Your task to perform on an android device: Go to battery settings Image 0: 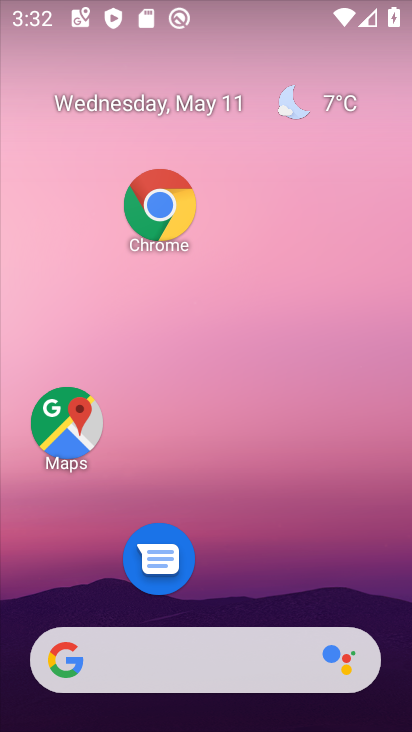
Step 0: drag from (184, 615) to (181, 187)
Your task to perform on an android device: Go to battery settings Image 1: 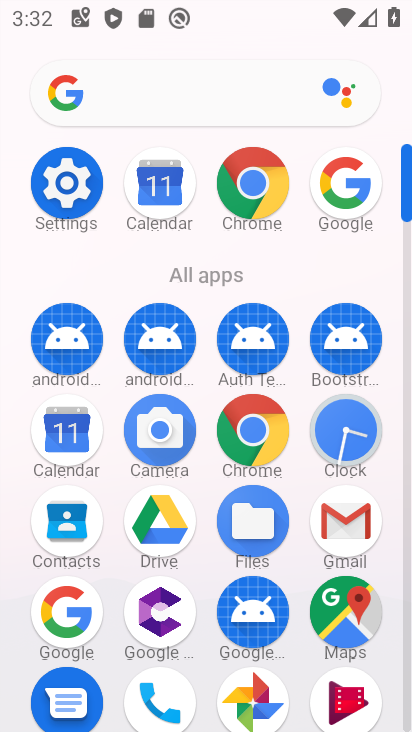
Step 1: click (68, 169)
Your task to perform on an android device: Go to battery settings Image 2: 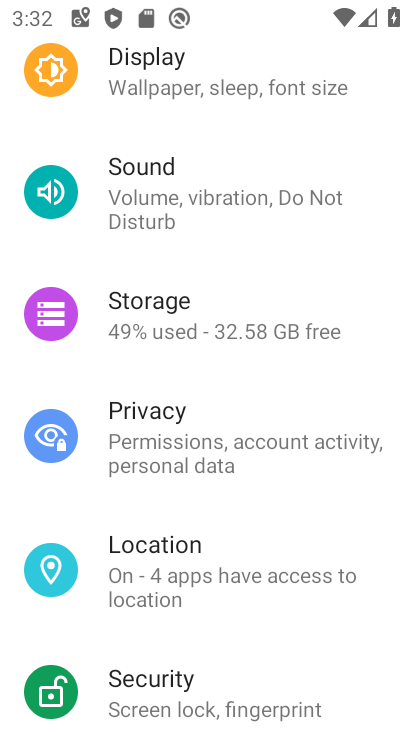
Step 2: drag from (135, 149) to (181, 370)
Your task to perform on an android device: Go to battery settings Image 3: 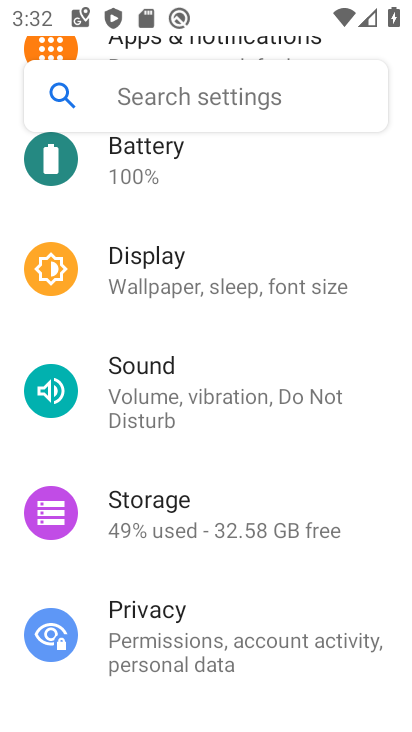
Step 3: drag from (163, 232) to (196, 334)
Your task to perform on an android device: Go to battery settings Image 4: 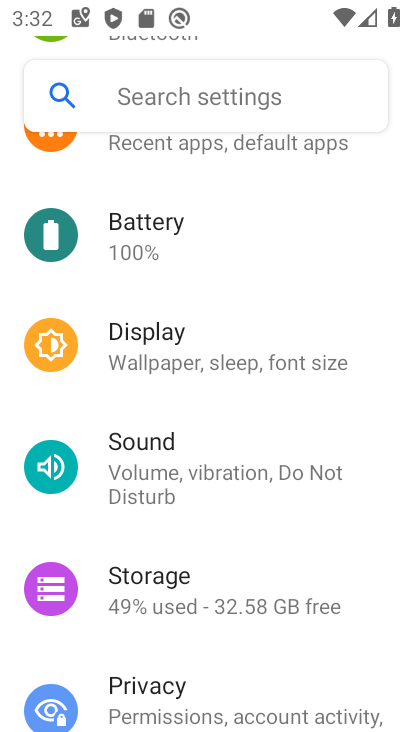
Step 4: click (154, 241)
Your task to perform on an android device: Go to battery settings Image 5: 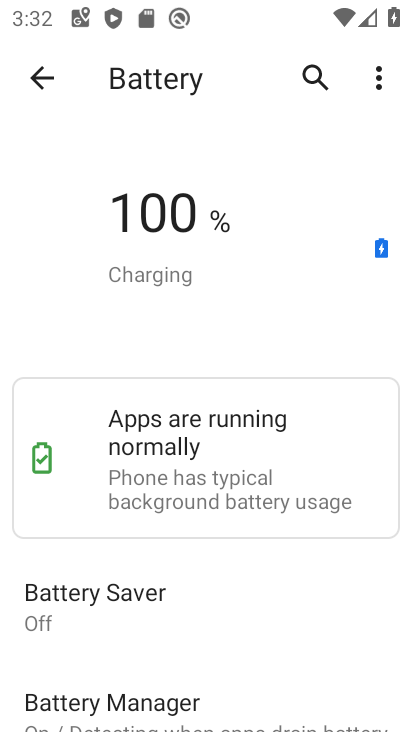
Step 5: click (382, 83)
Your task to perform on an android device: Go to battery settings Image 6: 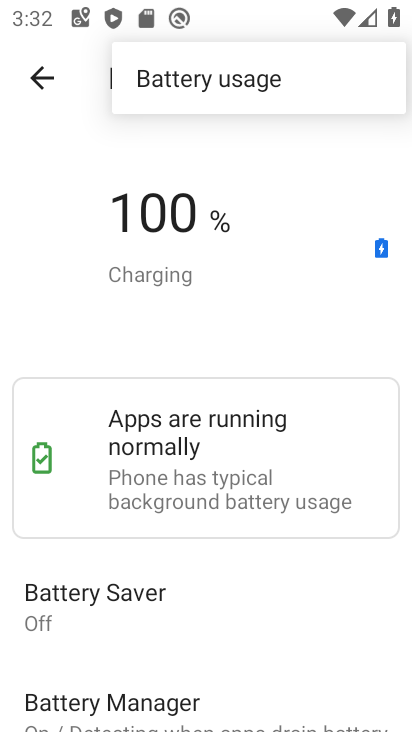
Step 6: click (277, 88)
Your task to perform on an android device: Go to battery settings Image 7: 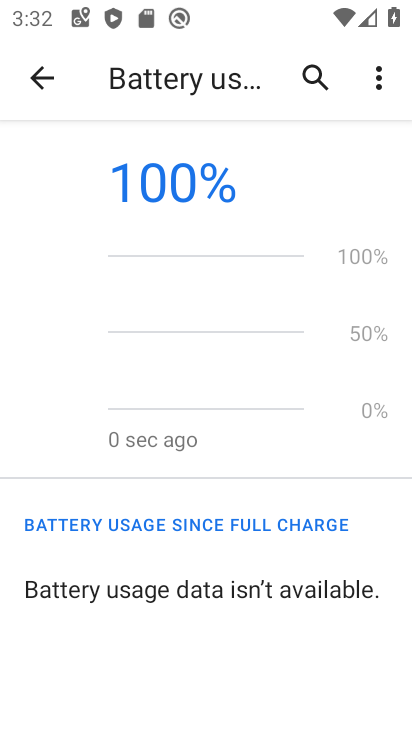
Step 7: task complete